Your task to perform on an android device: Search for sushi restaurants on Maps Image 0: 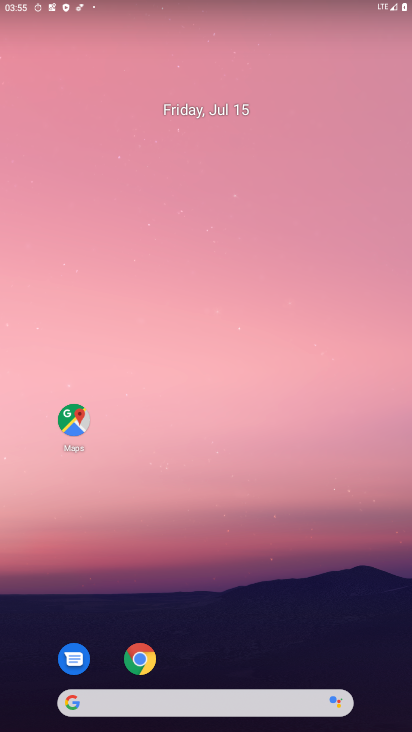
Step 0: click (71, 416)
Your task to perform on an android device: Search for sushi restaurants on Maps Image 1: 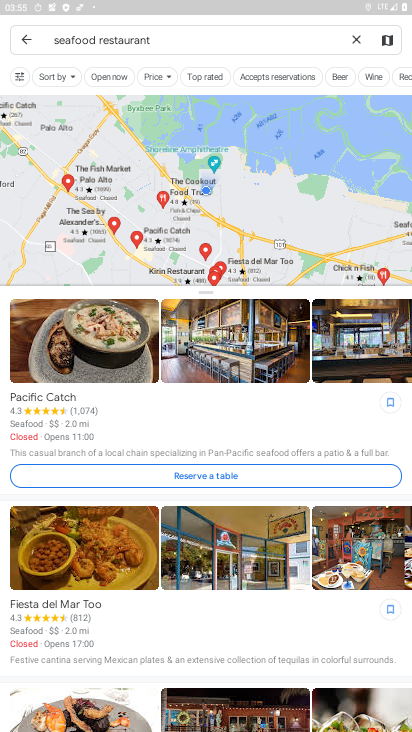
Step 1: click (177, 45)
Your task to perform on an android device: Search for sushi restaurants on Maps Image 2: 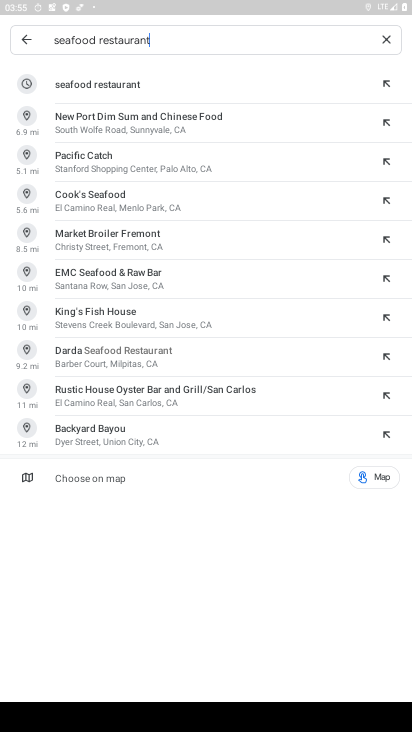
Step 2: click (387, 41)
Your task to perform on an android device: Search for sushi restaurants on Maps Image 3: 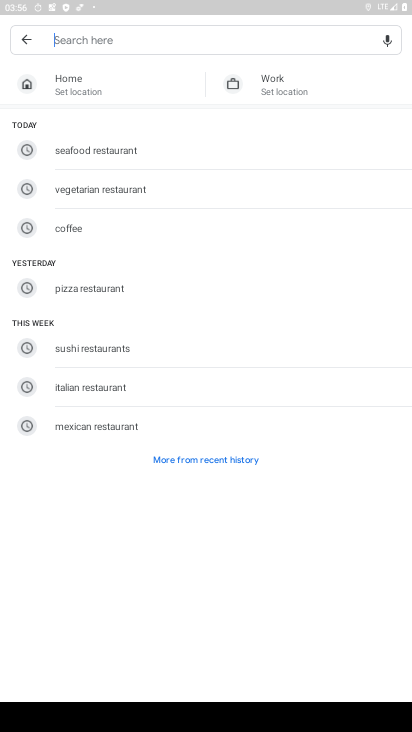
Step 3: type "sushi restaurants"
Your task to perform on an android device: Search for sushi restaurants on Maps Image 4: 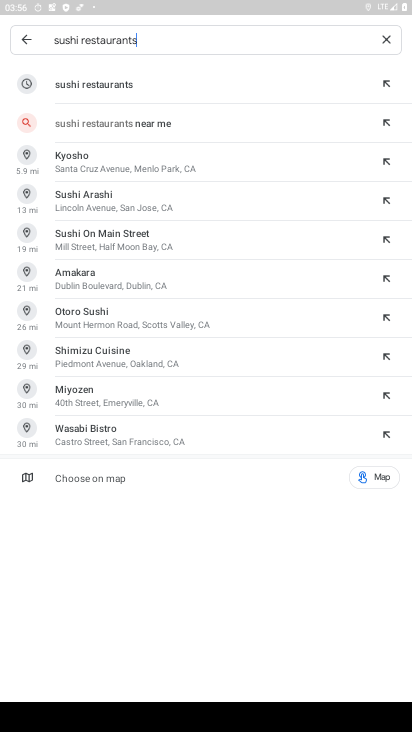
Step 4: click (166, 78)
Your task to perform on an android device: Search for sushi restaurants on Maps Image 5: 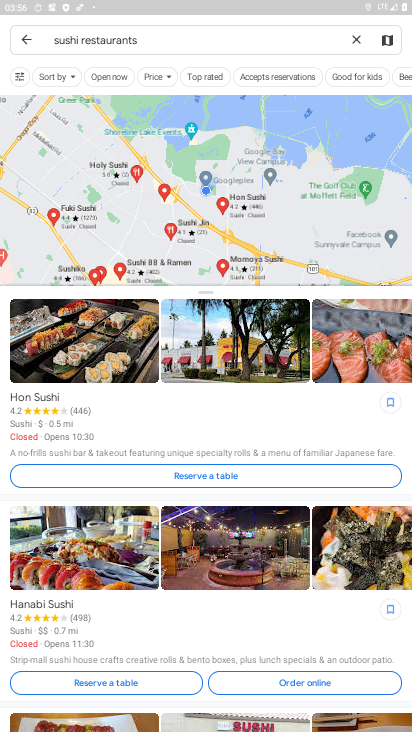
Step 5: task complete